Your task to perform on an android device: turn off priority inbox in the gmail app Image 0: 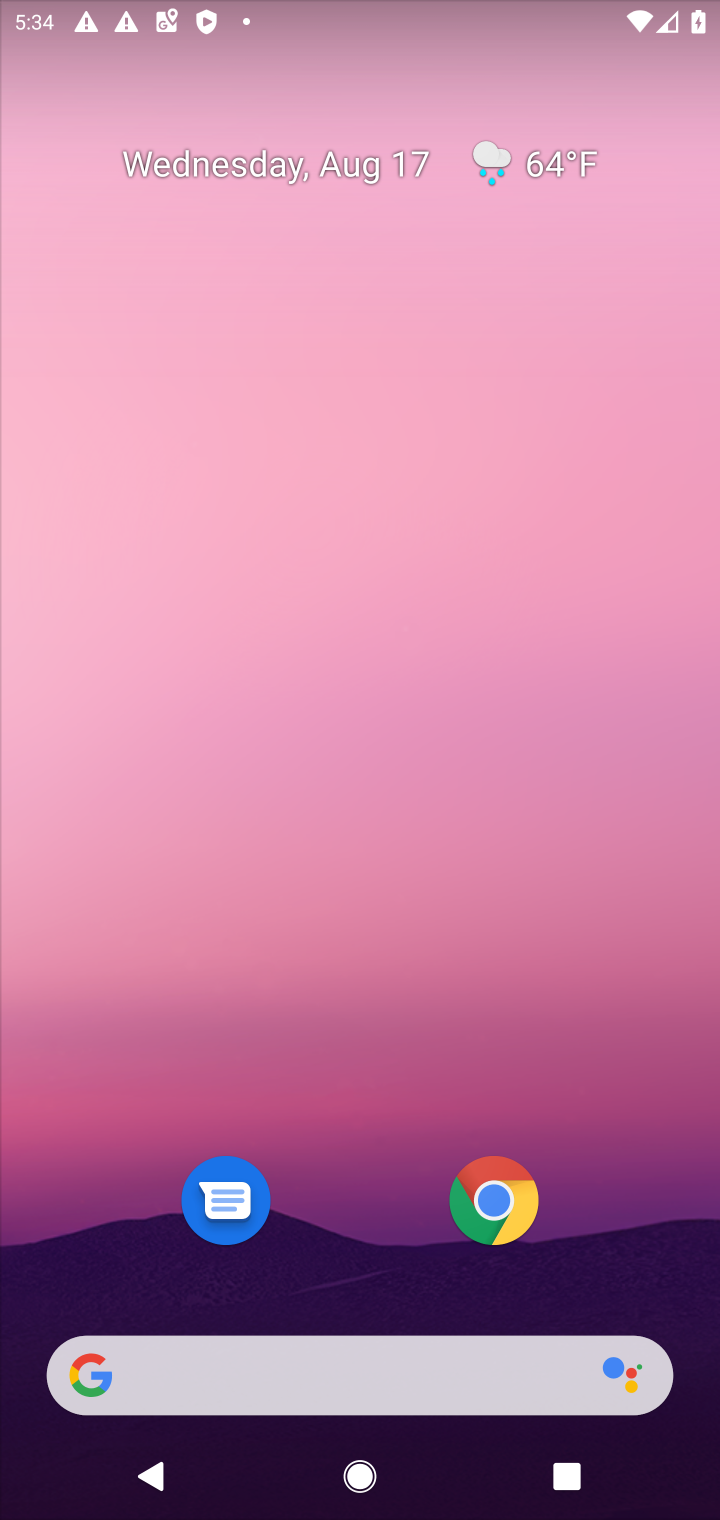
Step 0: drag from (376, 1169) to (379, 266)
Your task to perform on an android device: turn off priority inbox in the gmail app Image 1: 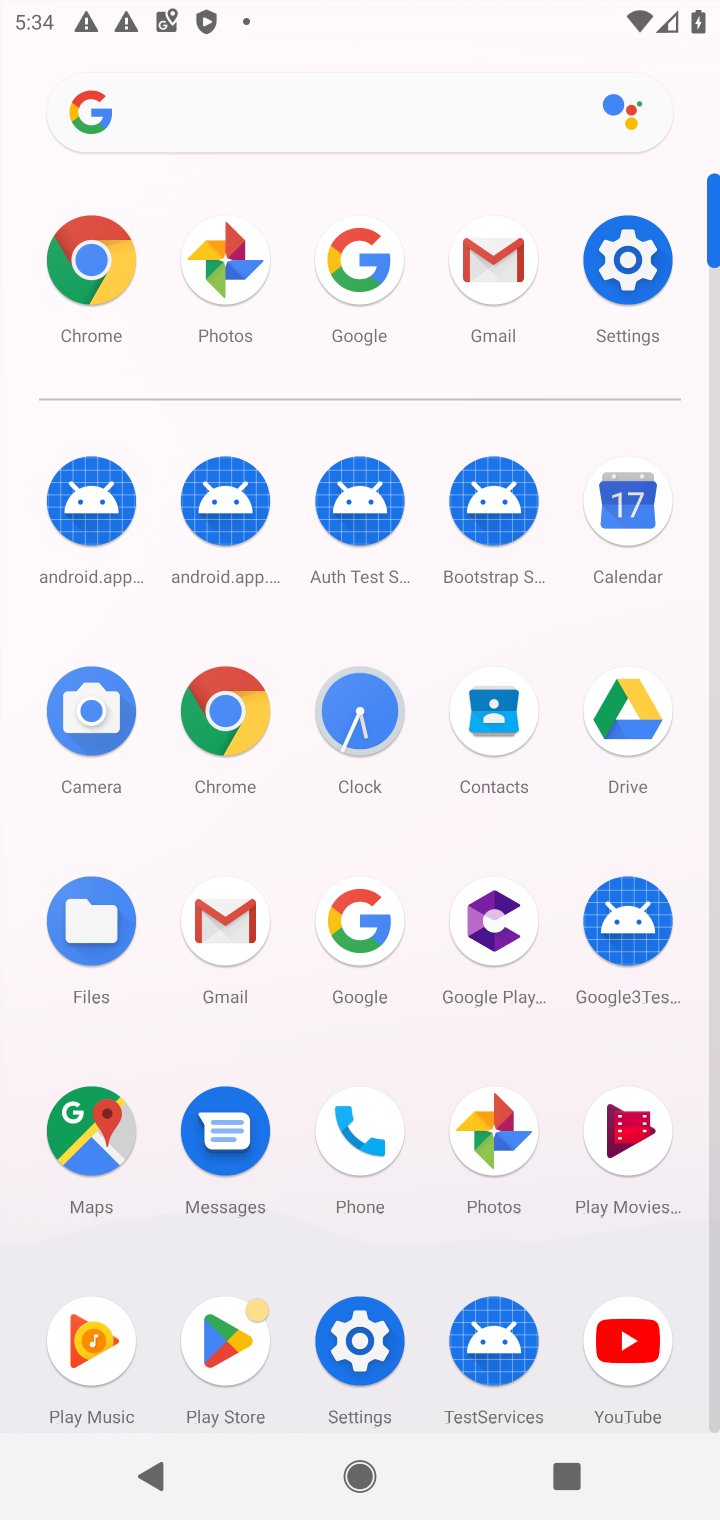
Step 1: click (211, 940)
Your task to perform on an android device: turn off priority inbox in the gmail app Image 2: 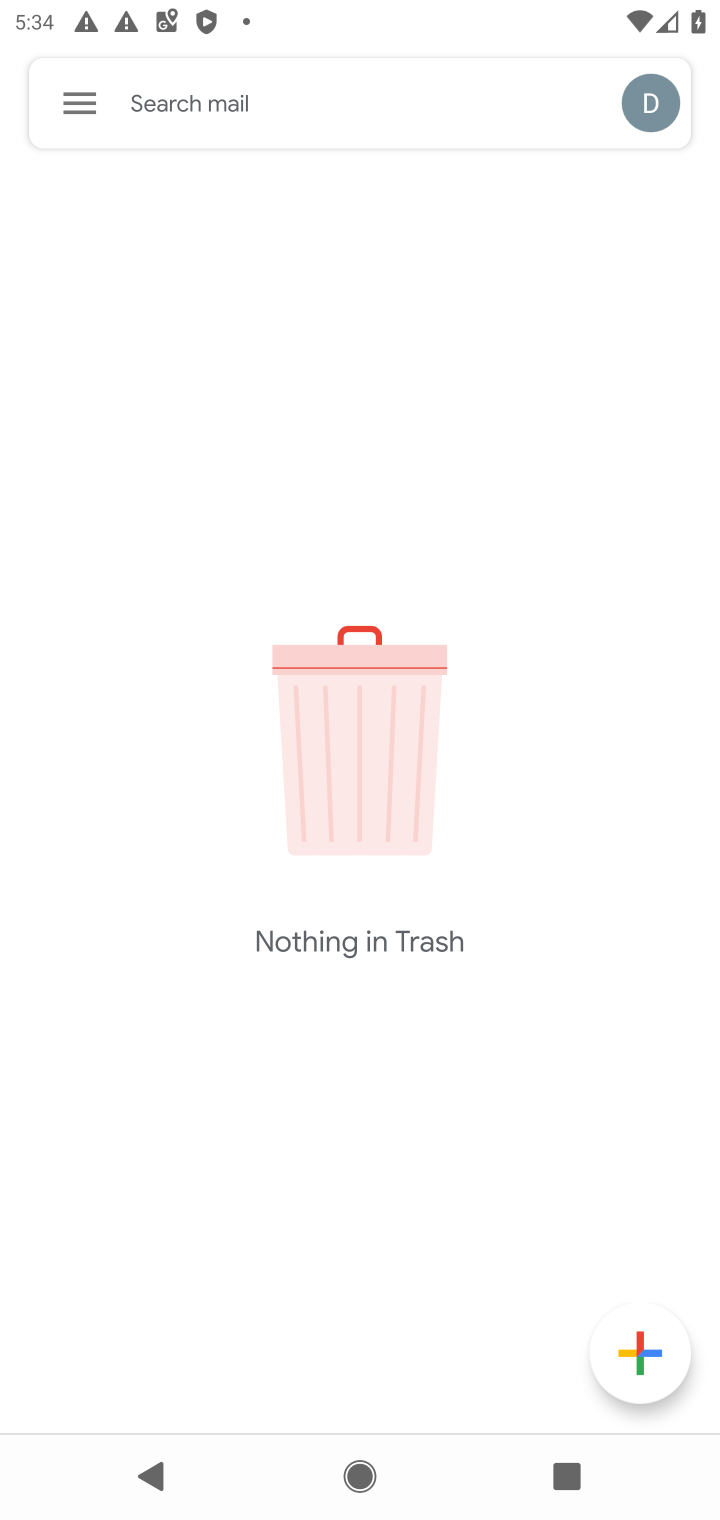
Step 2: click (75, 106)
Your task to perform on an android device: turn off priority inbox in the gmail app Image 3: 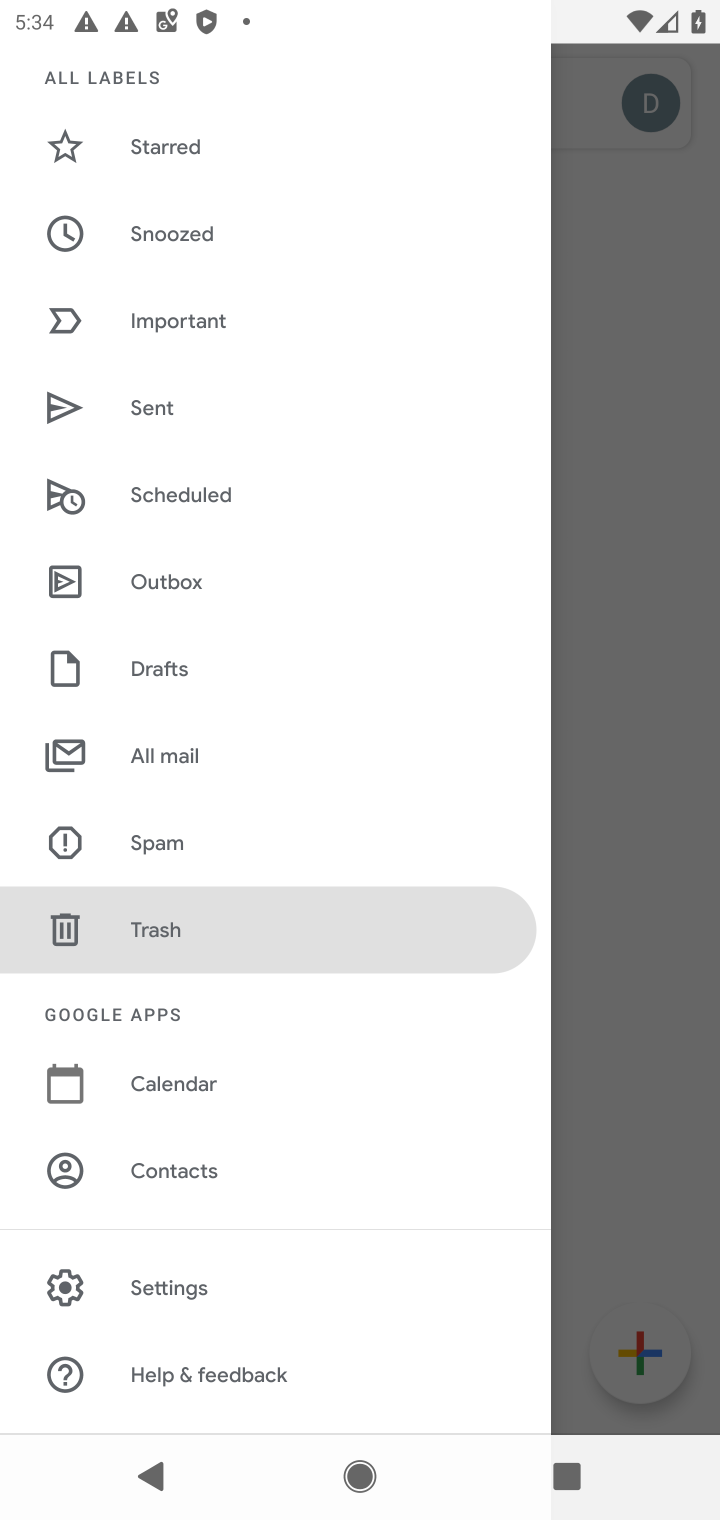
Step 3: click (164, 1275)
Your task to perform on an android device: turn off priority inbox in the gmail app Image 4: 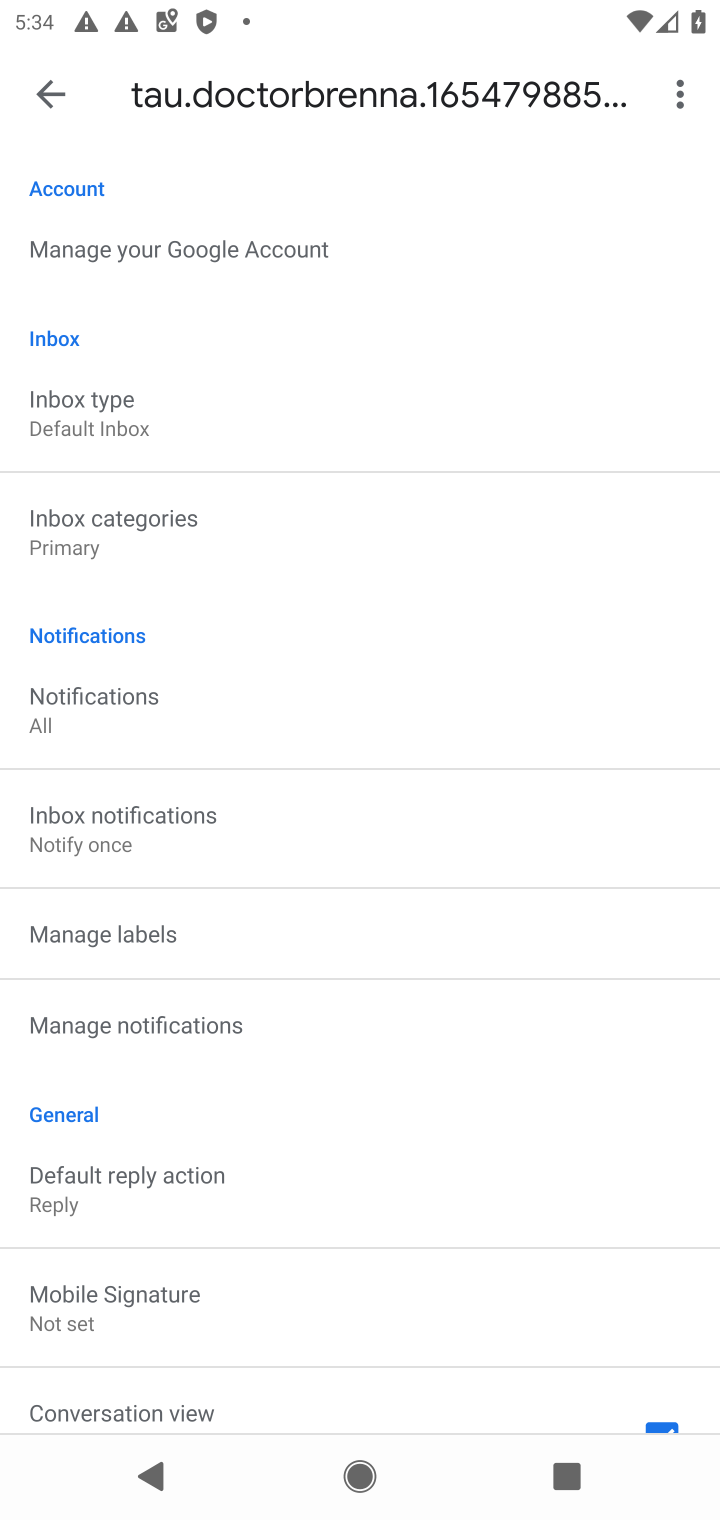
Step 4: task complete